Your task to perform on an android device: Open the stopwatch Image 0: 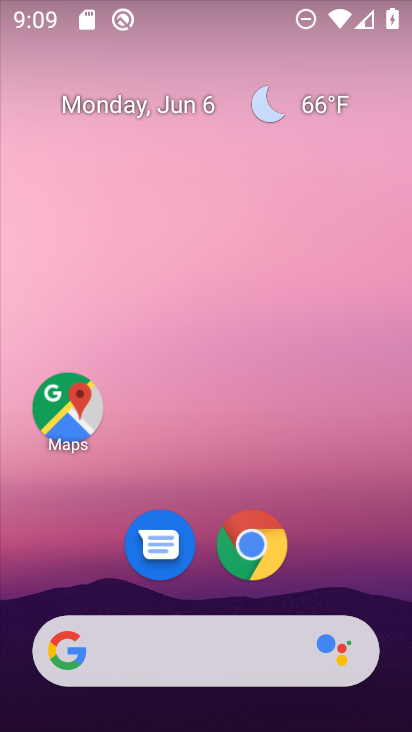
Step 0: drag from (202, 597) to (306, 111)
Your task to perform on an android device: Open the stopwatch Image 1: 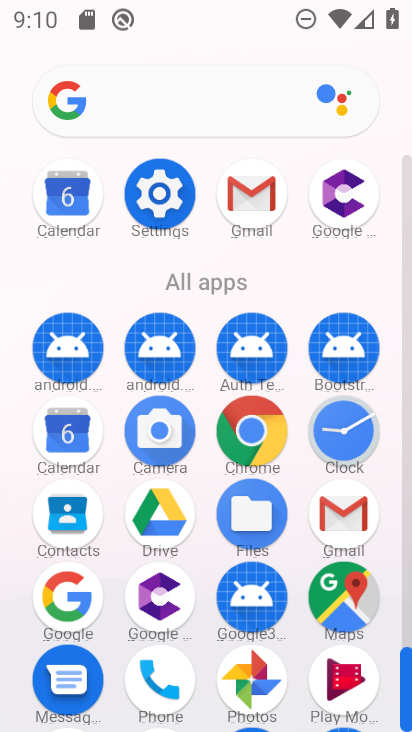
Step 1: click (353, 441)
Your task to perform on an android device: Open the stopwatch Image 2: 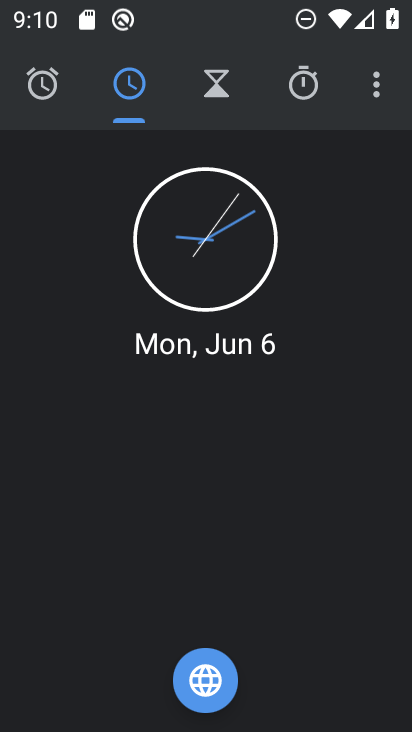
Step 2: click (296, 93)
Your task to perform on an android device: Open the stopwatch Image 3: 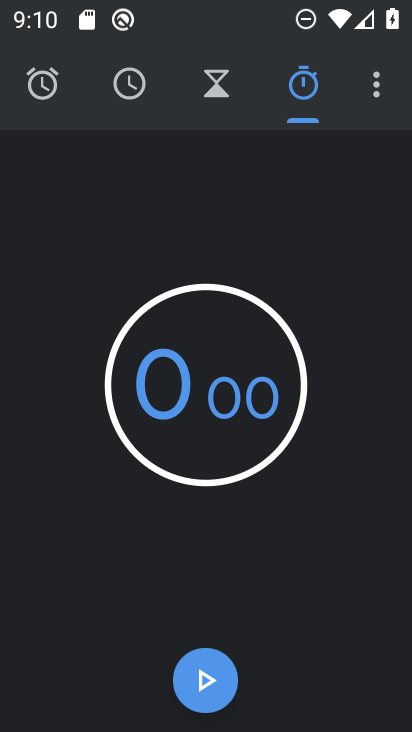
Step 3: click (210, 693)
Your task to perform on an android device: Open the stopwatch Image 4: 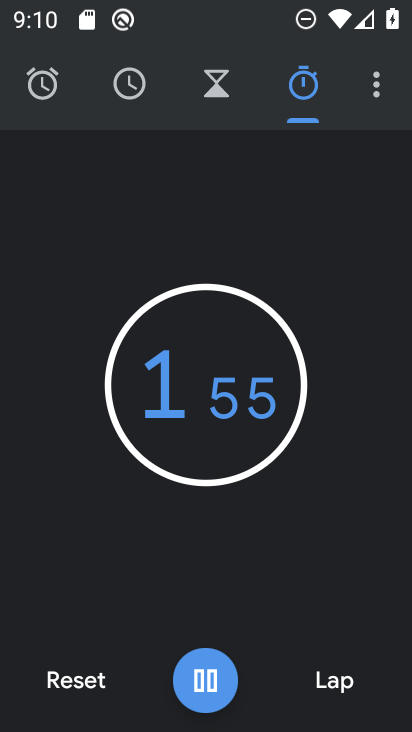
Step 4: task complete